Your task to perform on an android device: Go to internet settings Image 0: 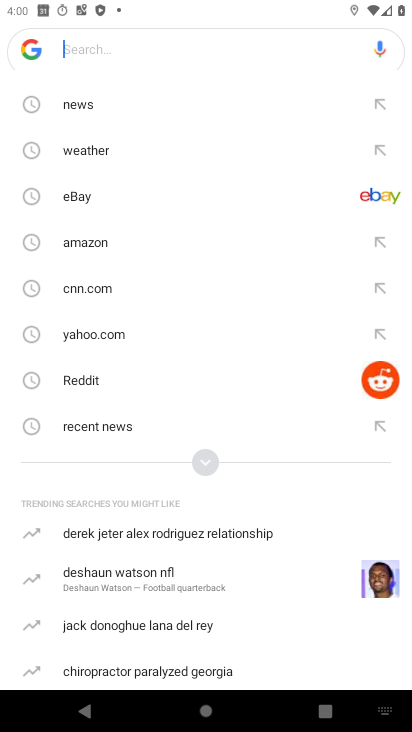
Step 0: press home button
Your task to perform on an android device: Go to internet settings Image 1: 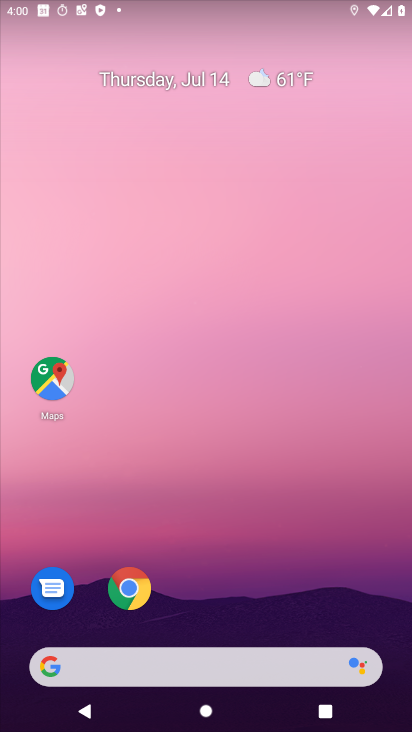
Step 1: drag from (200, 669) to (296, 157)
Your task to perform on an android device: Go to internet settings Image 2: 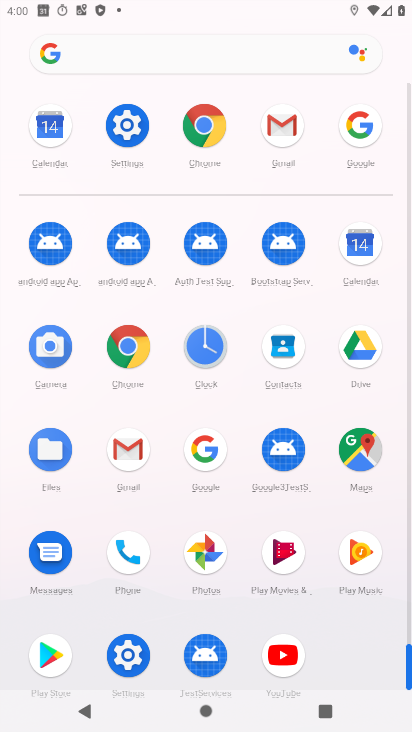
Step 2: click (129, 654)
Your task to perform on an android device: Go to internet settings Image 3: 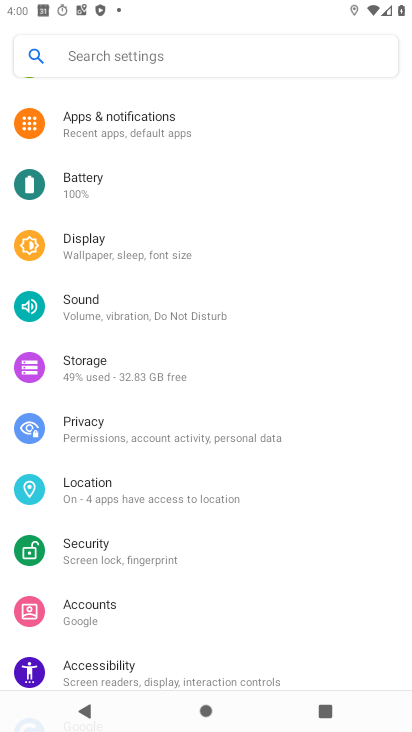
Step 3: drag from (199, 358) to (155, 468)
Your task to perform on an android device: Go to internet settings Image 4: 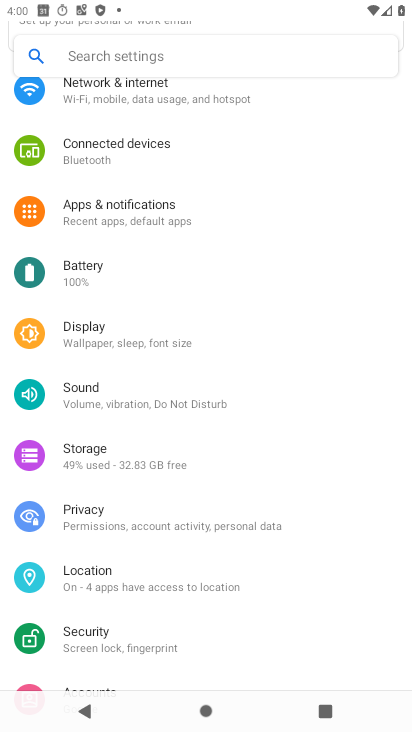
Step 4: drag from (195, 285) to (205, 410)
Your task to perform on an android device: Go to internet settings Image 5: 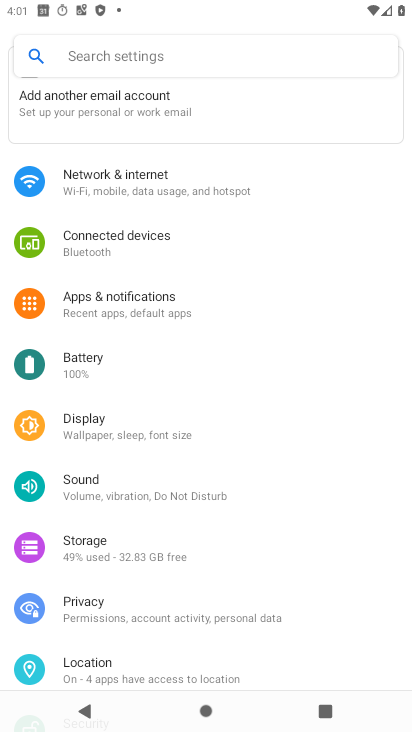
Step 5: click (169, 182)
Your task to perform on an android device: Go to internet settings Image 6: 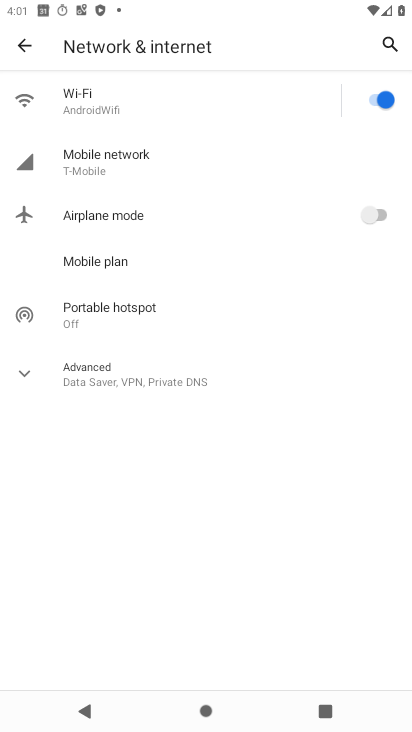
Step 6: task complete